Your task to perform on an android device: Open calendar and show me the third week of next month Image 0: 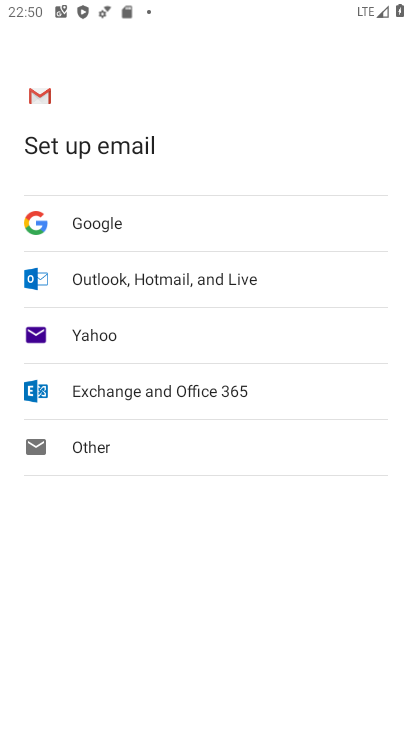
Step 0: press home button
Your task to perform on an android device: Open calendar and show me the third week of next month Image 1: 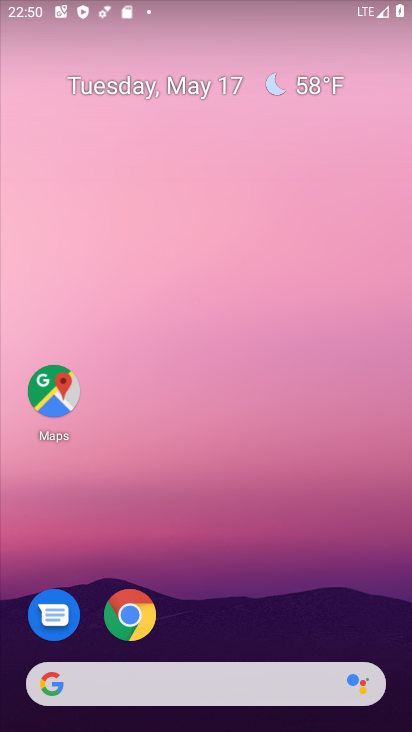
Step 1: drag from (240, 606) to (205, 198)
Your task to perform on an android device: Open calendar and show me the third week of next month Image 2: 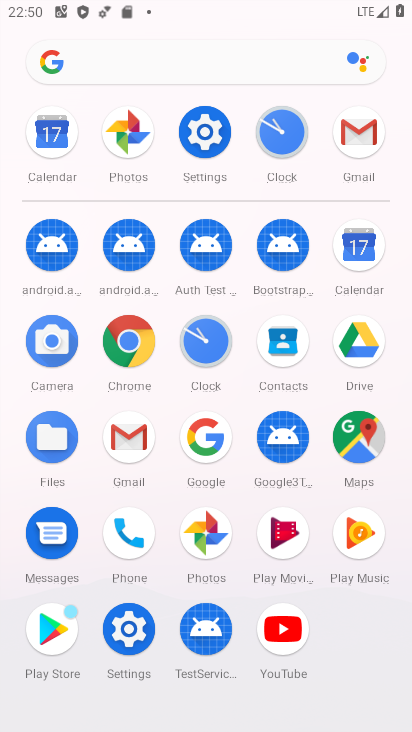
Step 2: click (69, 130)
Your task to perform on an android device: Open calendar and show me the third week of next month Image 3: 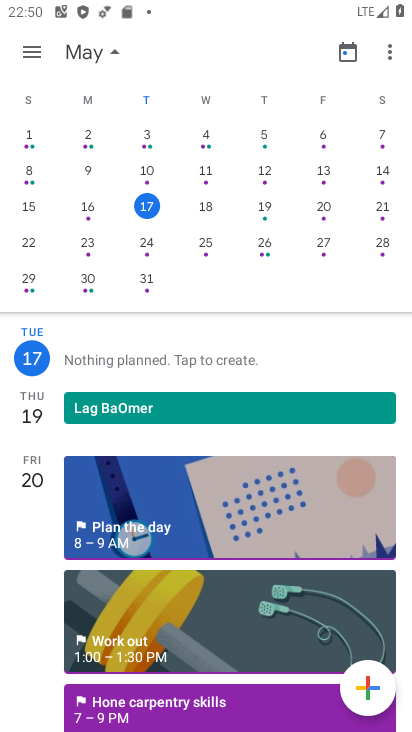
Step 3: drag from (330, 172) to (43, 127)
Your task to perform on an android device: Open calendar and show me the third week of next month Image 4: 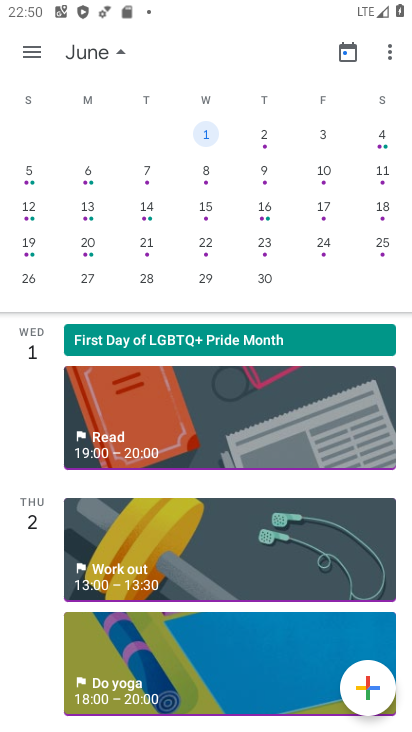
Step 4: click (22, 217)
Your task to perform on an android device: Open calendar and show me the third week of next month Image 5: 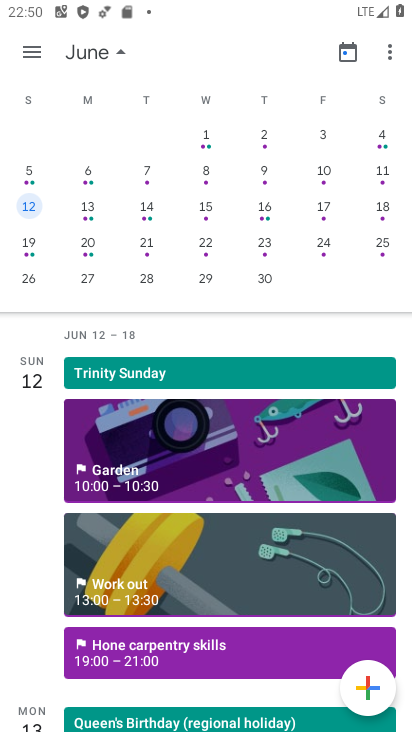
Step 5: task complete